Your task to perform on an android device: find which apps use the phone's location Image 0: 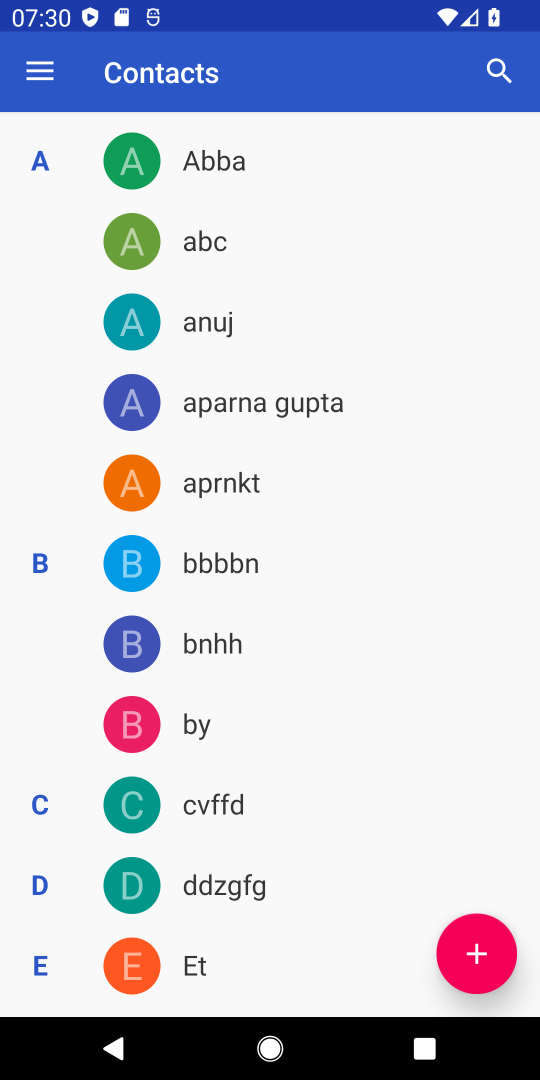
Step 0: press home button
Your task to perform on an android device: find which apps use the phone's location Image 1: 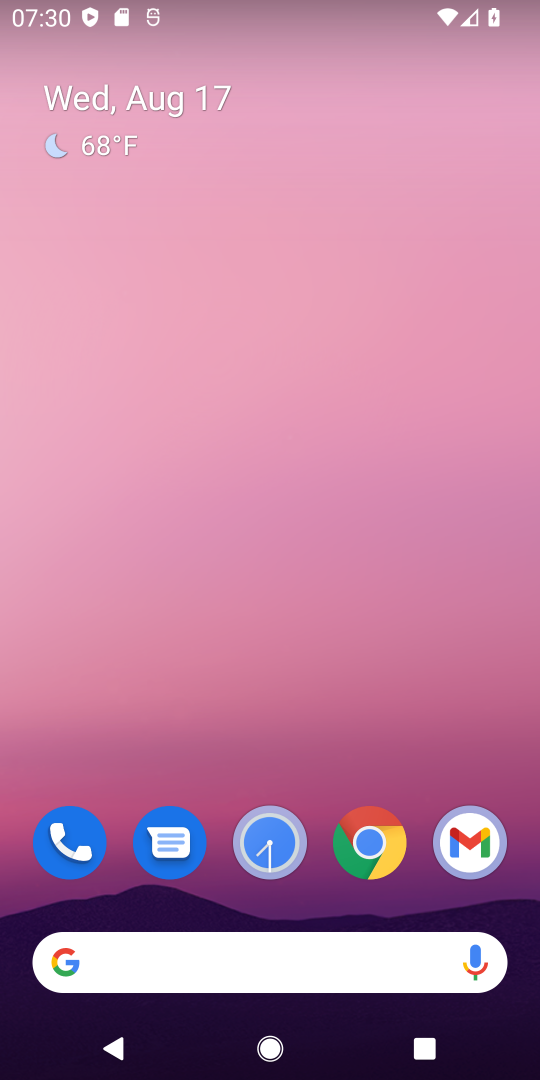
Step 1: drag from (247, 716) to (374, 93)
Your task to perform on an android device: find which apps use the phone's location Image 2: 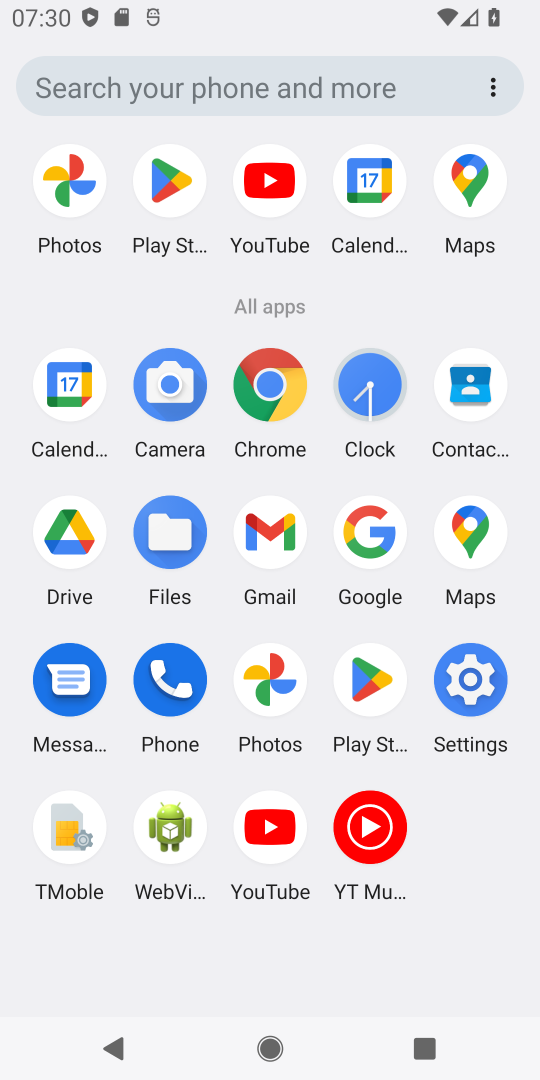
Step 2: click (471, 679)
Your task to perform on an android device: find which apps use the phone's location Image 3: 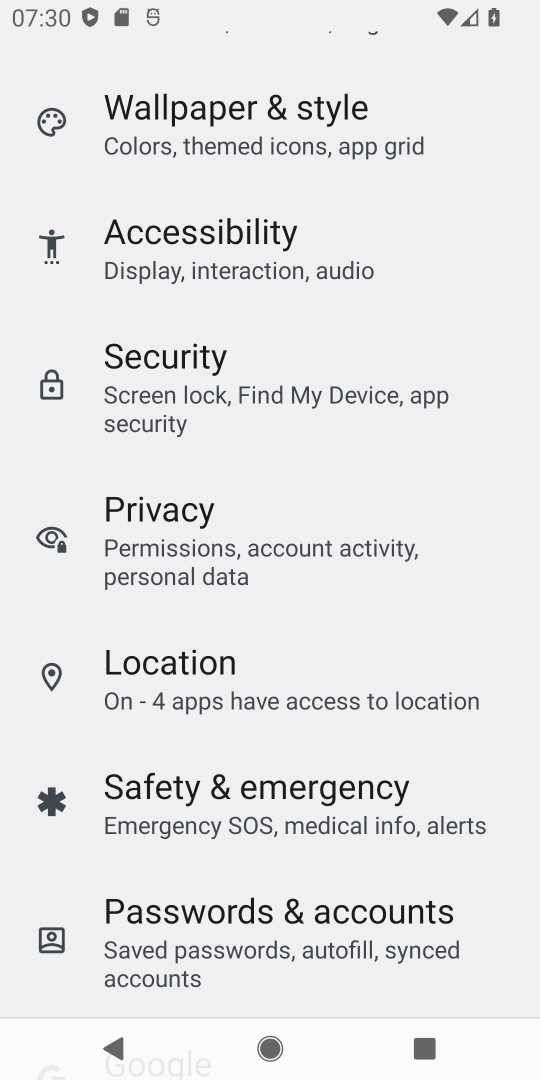
Step 3: click (300, 680)
Your task to perform on an android device: find which apps use the phone's location Image 4: 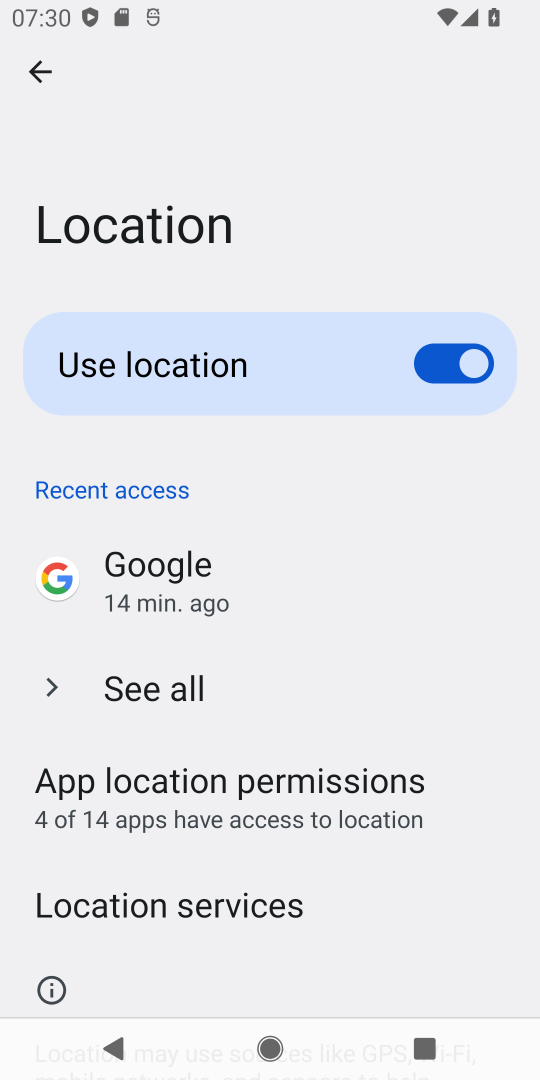
Step 4: click (206, 790)
Your task to perform on an android device: find which apps use the phone's location Image 5: 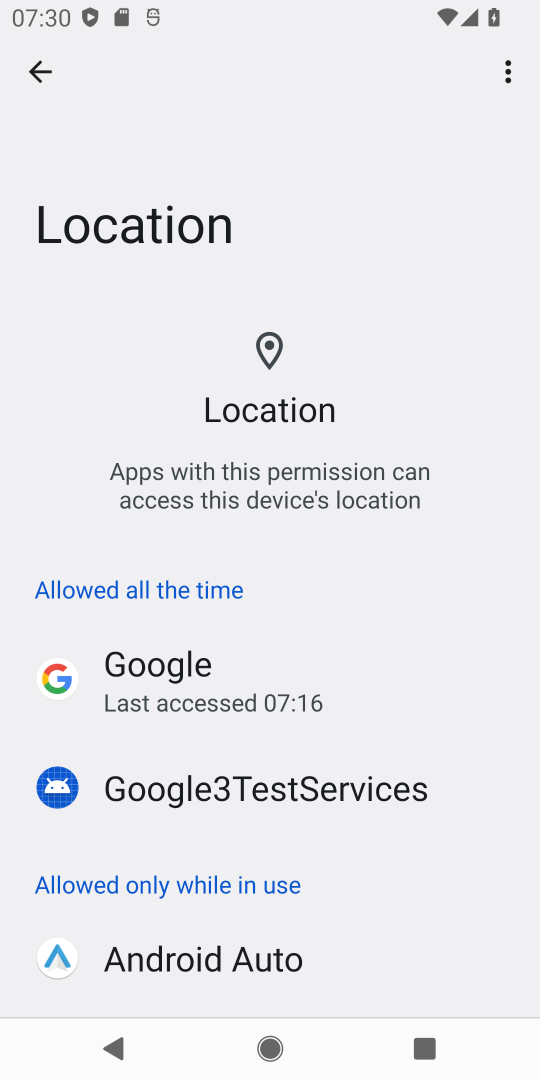
Step 5: task complete